Your task to perform on an android device: toggle priority inbox in the gmail app Image 0: 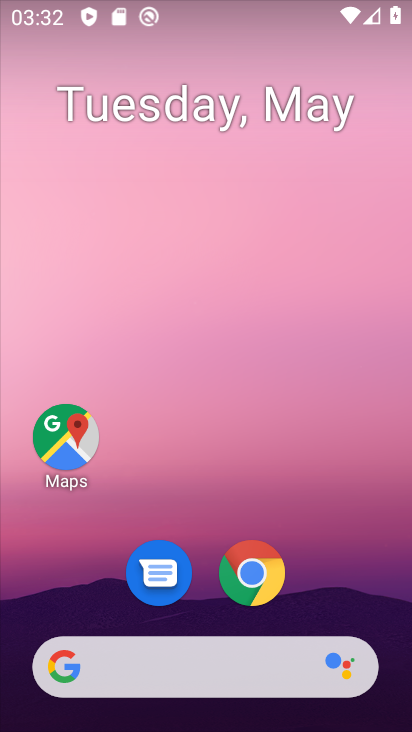
Step 0: drag from (197, 574) to (260, 60)
Your task to perform on an android device: toggle priority inbox in the gmail app Image 1: 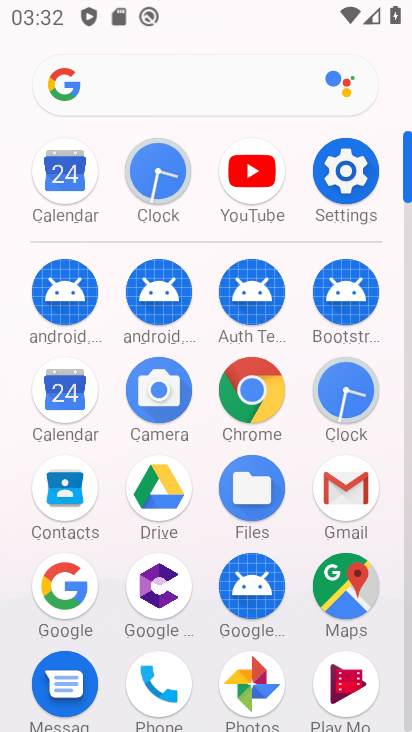
Step 1: click (349, 494)
Your task to perform on an android device: toggle priority inbox in the gmail app Image 2: 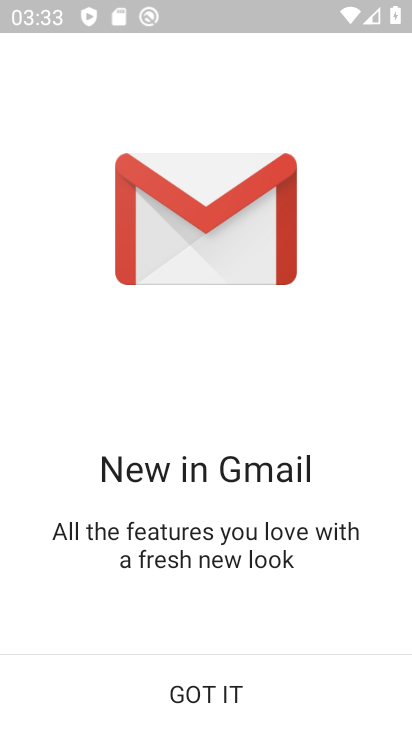
Step 2: click (190, 684)
Your task to perform on an android device: toggle priority inbox in the gmail app Image 3: 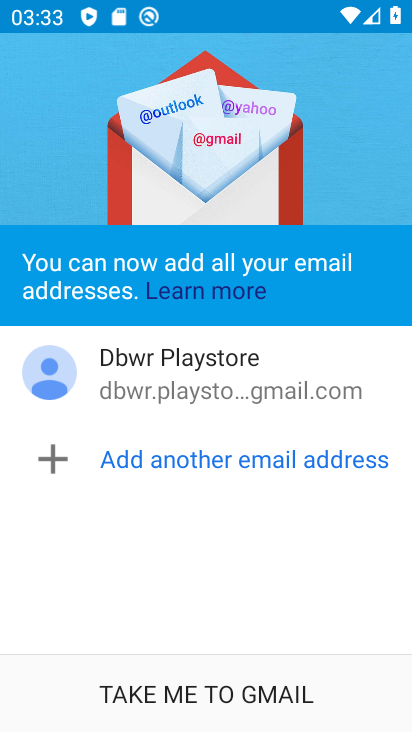
Step 3: click (218, 685)
Your task to perform on an android device: toggle priority inbox in the gmail app Image 4: 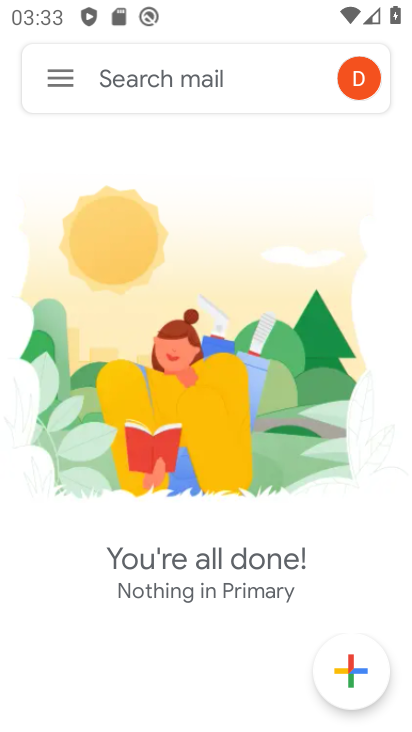
Step 4: click (53, 79)
Your task to perform on an android device: toggle priority inbox in the gmail app Image 5: 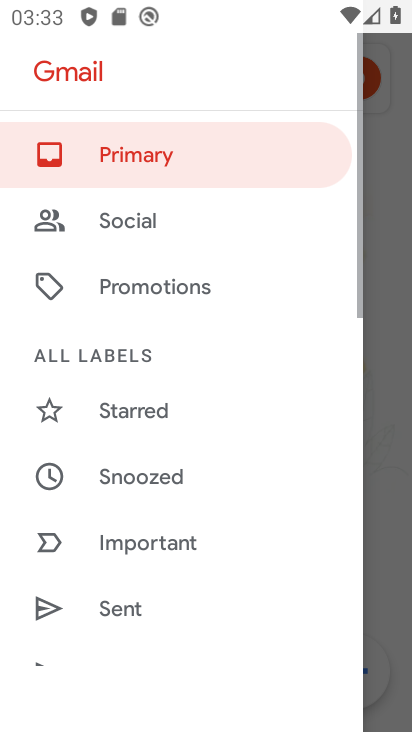
Step 5: drag from (176, 561) to (236, 0)
Your task to perform on an android device: toggle priority inbox in the gmail app Image 6: 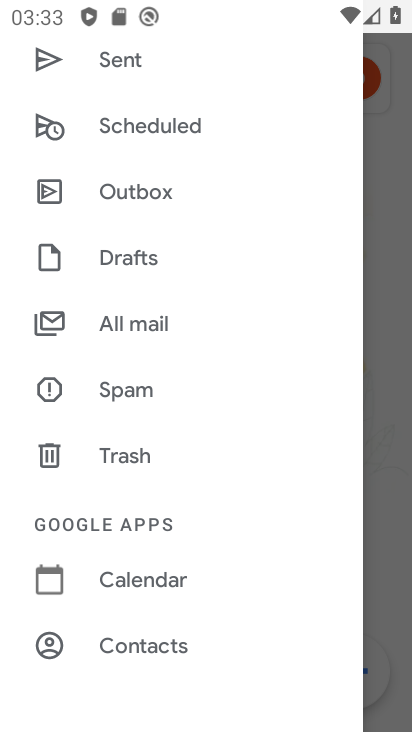
Step 6: drag from (137, 577) to (197, 63)
Your task to perform on an android device: toggle priority inbox in the gmail app Image 7: 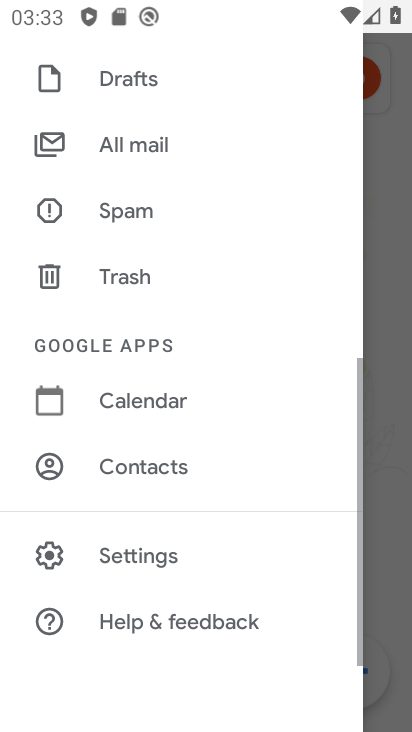
Step 7: click (139, 562)
Your task to perform on an android device: toggle priority inbox in the gmail app Image 8: 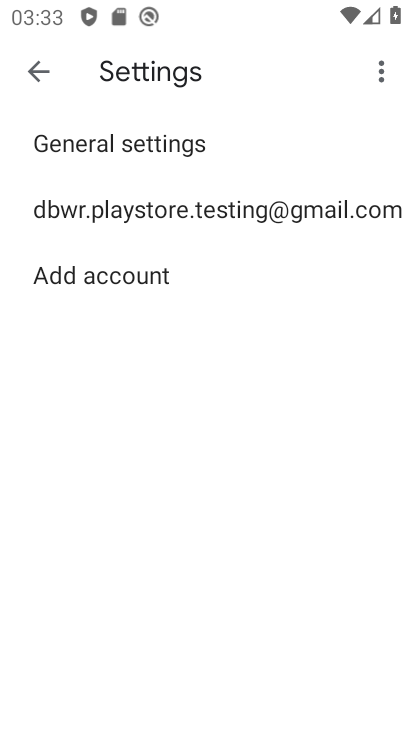
Step 8: click (167, 203)
Your task to perform on an android device: toggle priority inbox in the gmail app Image 9: 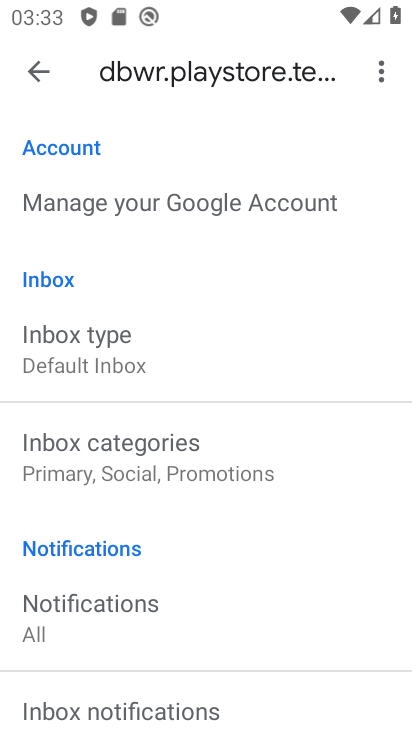
Step 9: click (109, 344)
Your task to perform on an android device: toggle priority inbox in the gmail app Image 10: 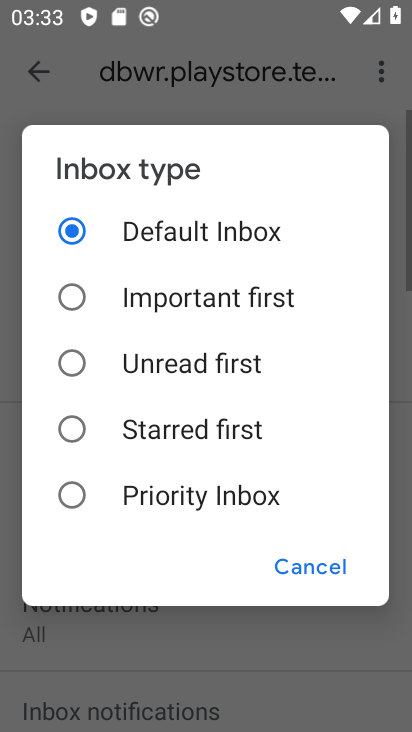
Step 10: click (68, 493)
Your task to perform on an android device: toggle priority inbox in the gmail app Image 11: 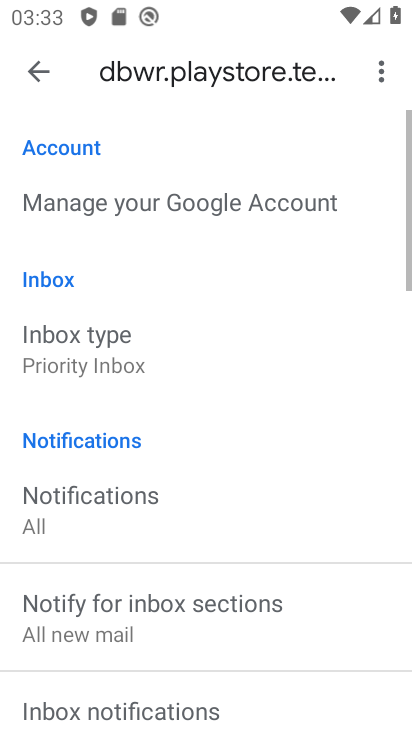
Step 11: task complete